Your task to perform on an android device: Open Youtube and go to the subscriptions tab Image 0: 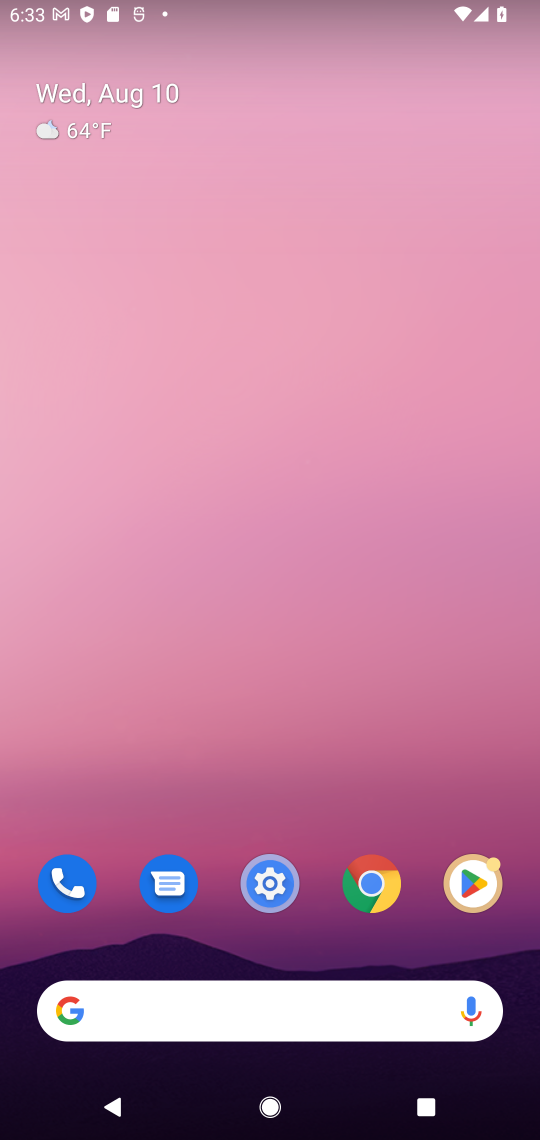
Step 0: drag from (327, 803) to (423, 60)
Your task to perform on an android device: Open Youtube and go to the subscriptions tab Image 1: 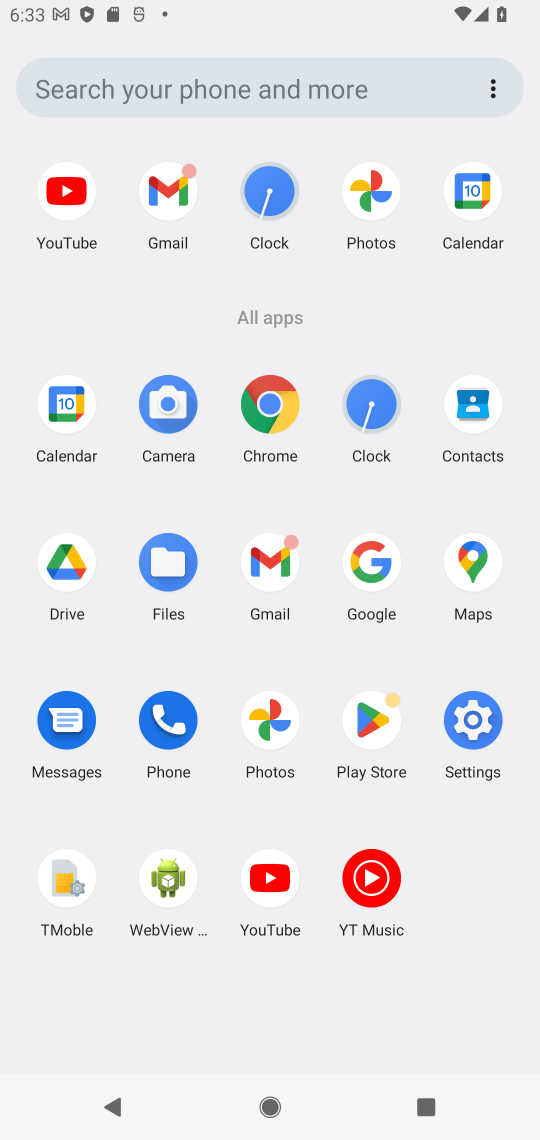
Step 1: click (265, 888)
Your task to perform on an android device: Open Youtube and go to the subscriptions tab Image 2: 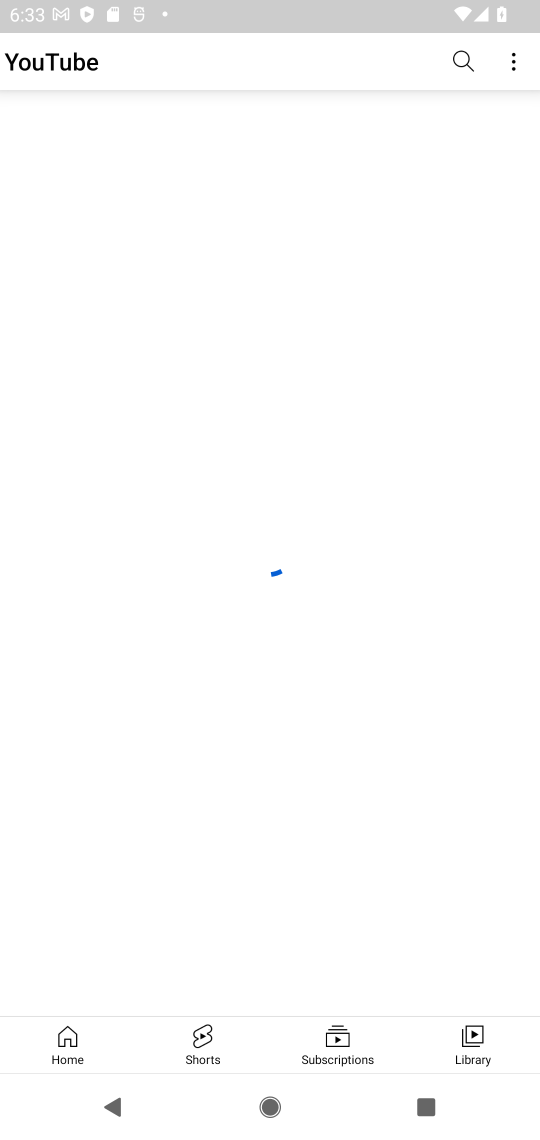
Step 2: click (354, 1041)
Your task to perform on an android device: Open Youtube and go to the subscriptions tab Image 3: 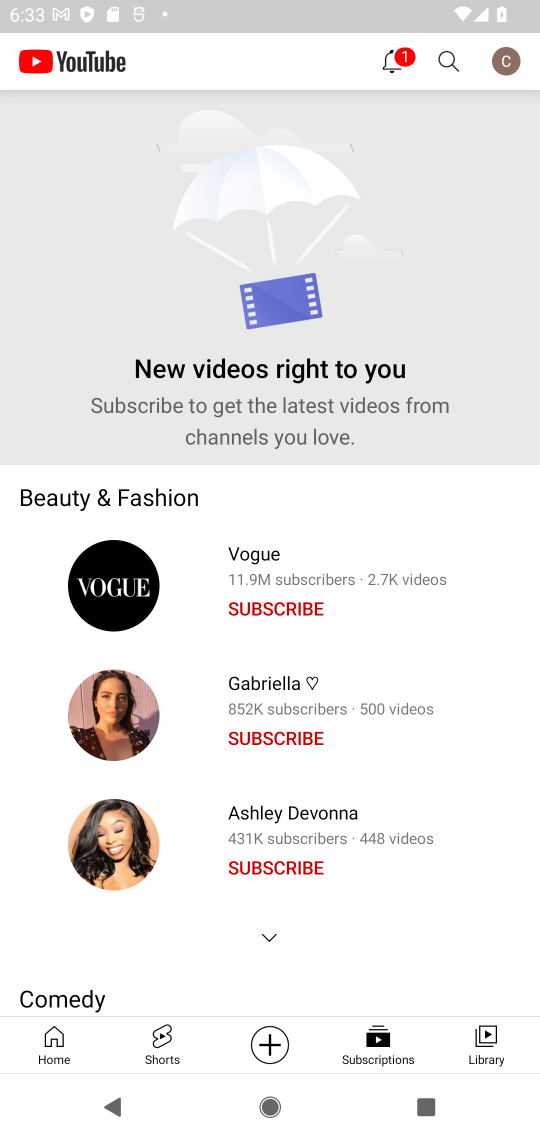
Step 3: task complete